Your task to perform on an android device: toggle show notifications on the lock screen Image 0: 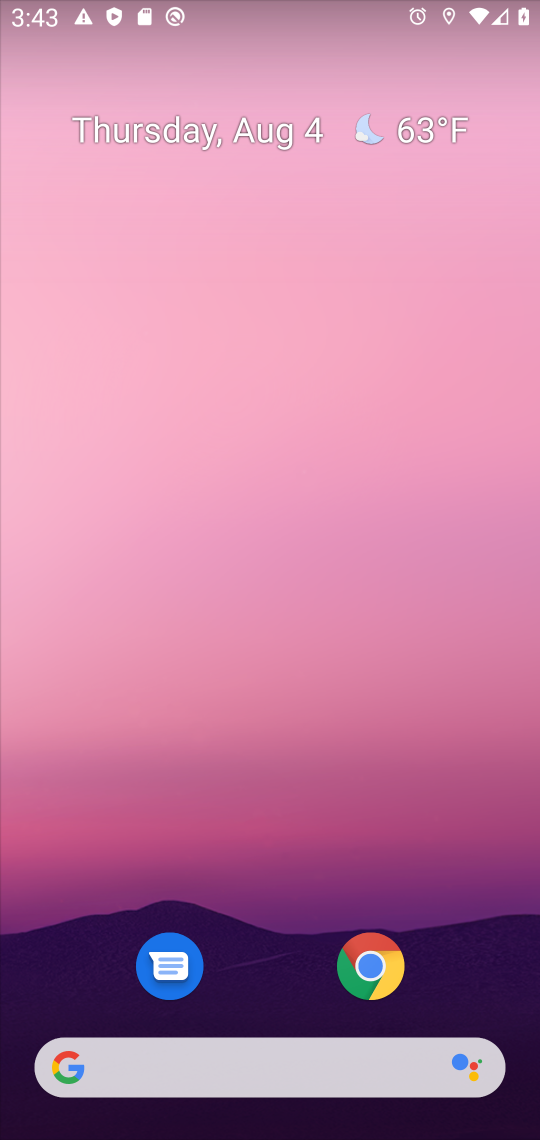
Step 0: press home button
Your task to perform on an android device: toggle show notifications on the lock screen Image 1: 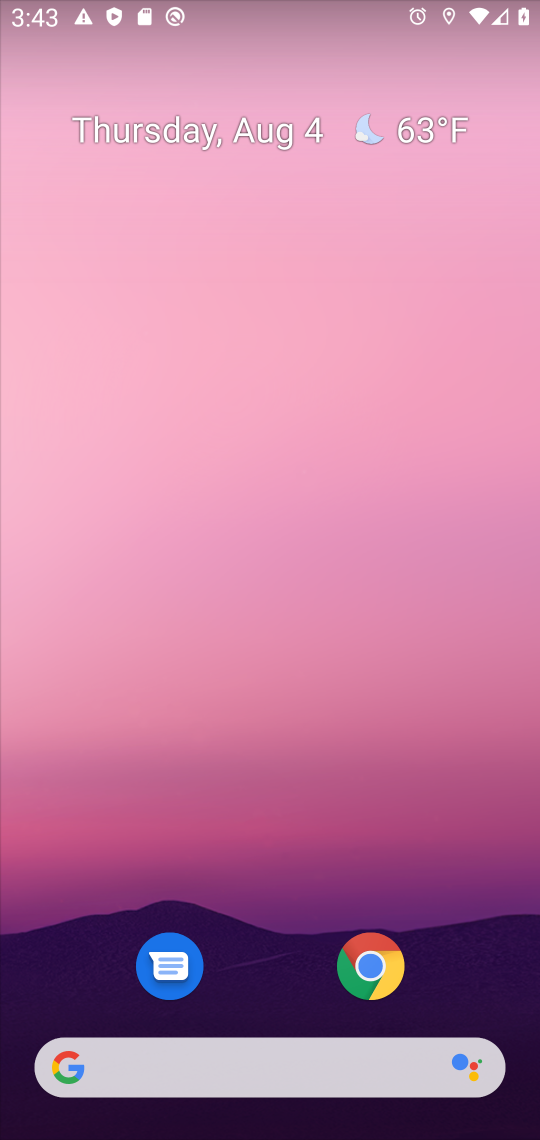
Step 1: drag from (244, 1006) to (389, 68)
Your task to perform on an android device: toggle show notifications on the lock screen Image 2: 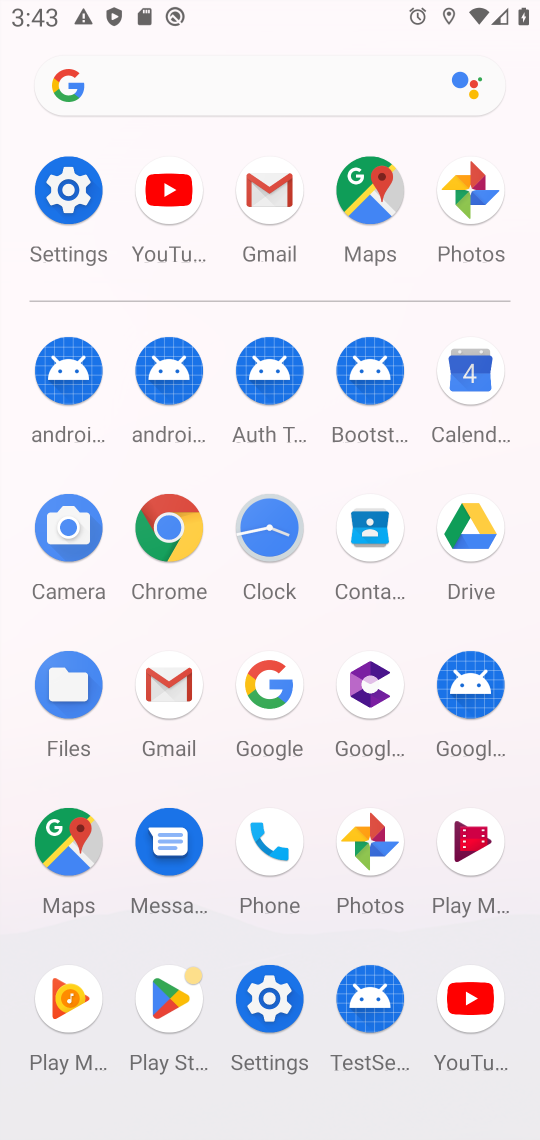
Step 2: click (74, 185)
Your task to perform on an android device: toggle show notifications on the lock screen Image 3: 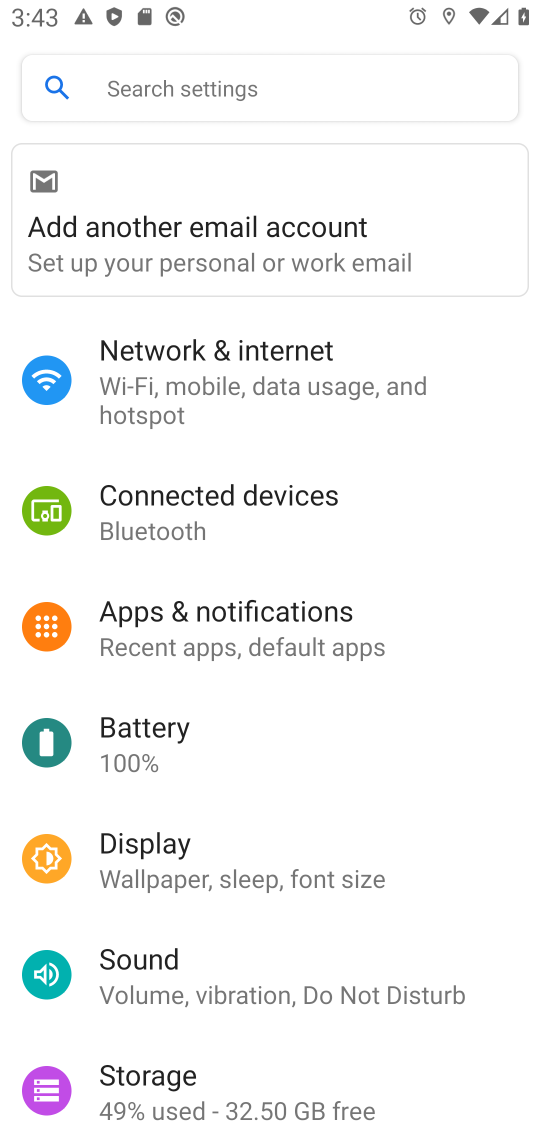
Step 3: click (210, 619)
Your task to perform on an android device: toggle show notifications on the lock screen Image 4: 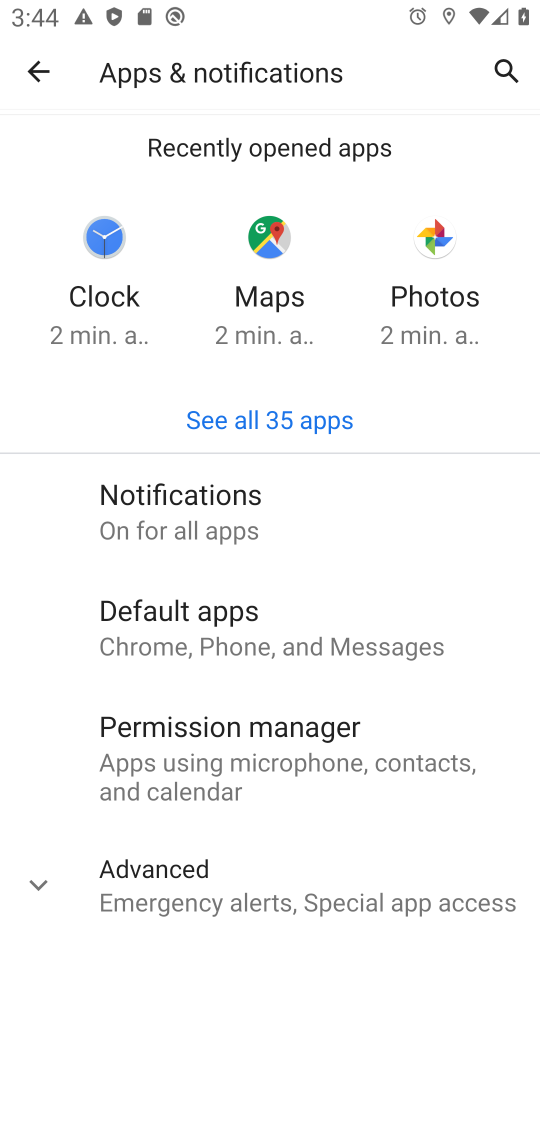
Step 4: click (189, 509)
Your task to perform on an android device: toggle show notifications on the lock screen Image 5: 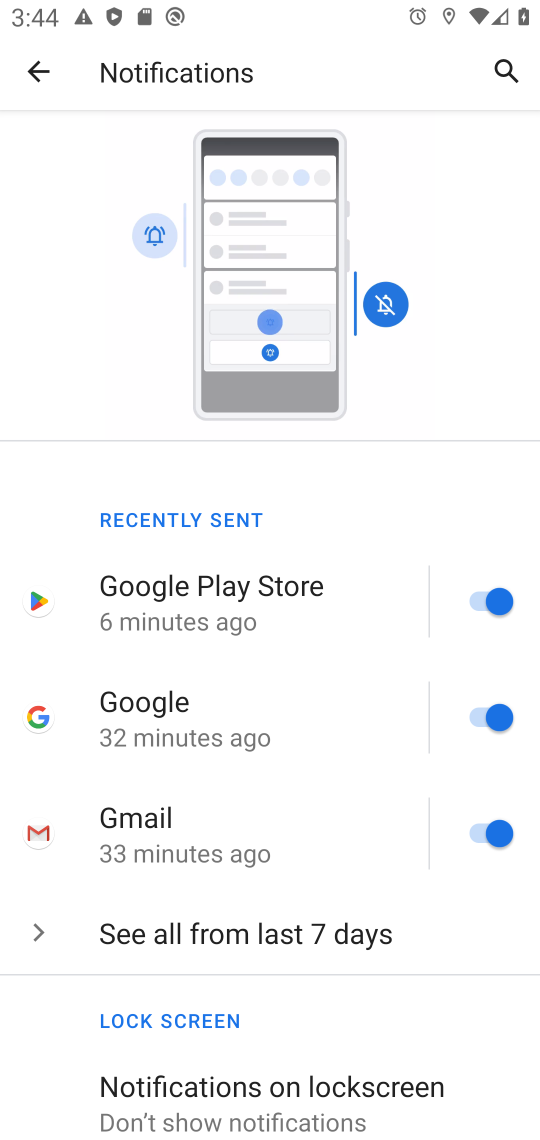
Step 5: drag from (422, 1012) to (287, 411)
Your task to perform on an android device: toggle show notifications on the lock screen Image 6: 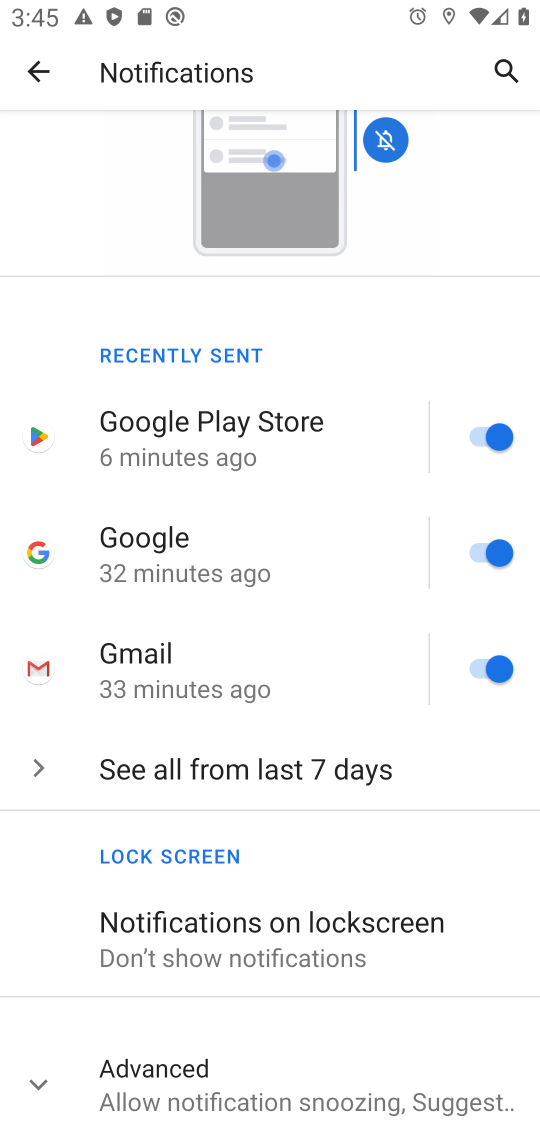
Step 6: click (208, 938)
Your task to perform on an android device: toggle show notifications on the lock screen Image 7: 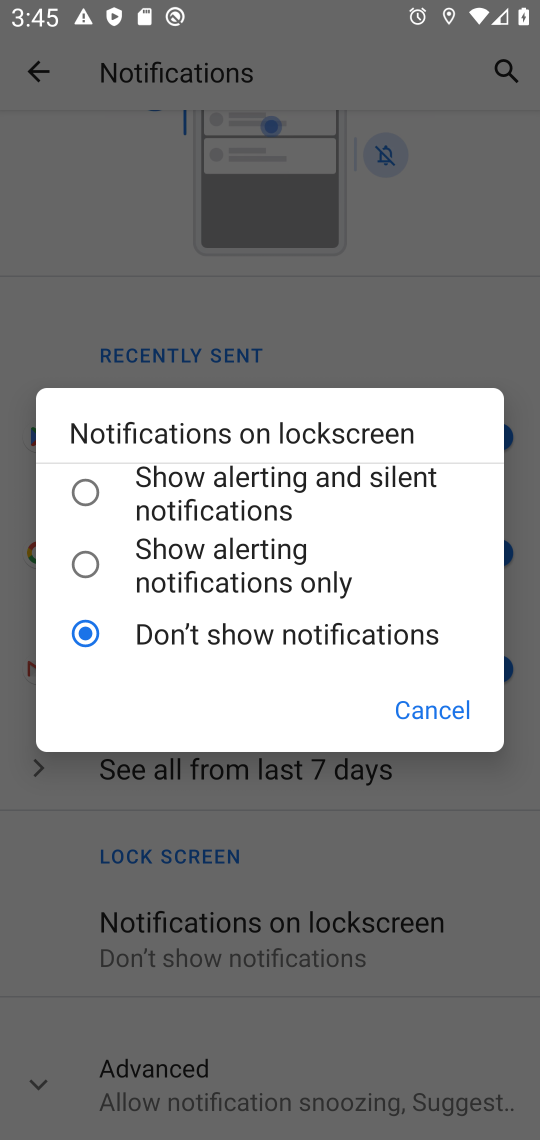
Step 7: click (84, 490)
Your task to perform on an android device: toggle show notifications on the lock screen Image 8: 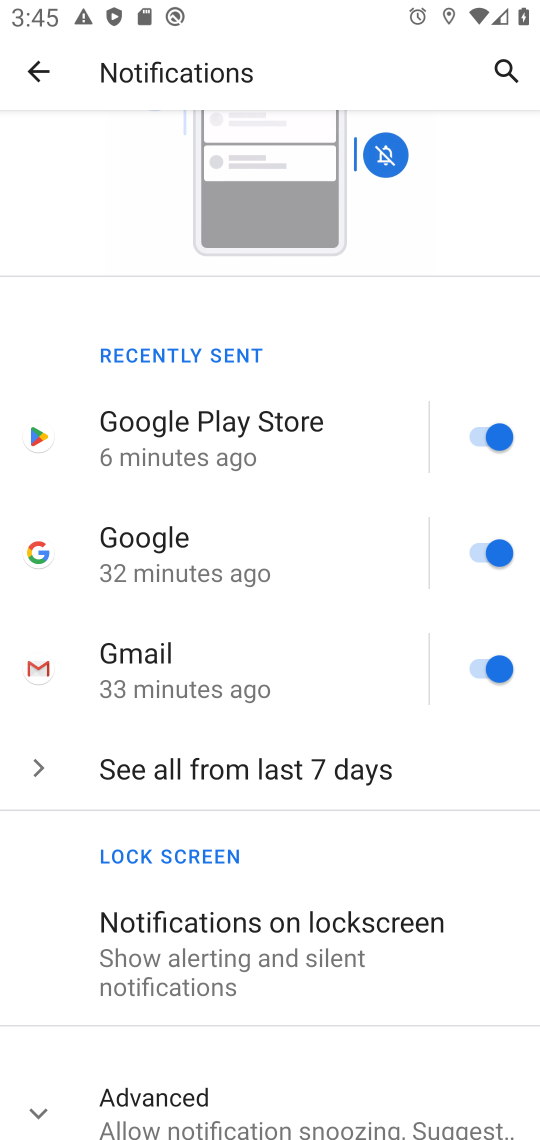
Step 8: task complete